Your task to perform on an android device: turn off location Image 0: 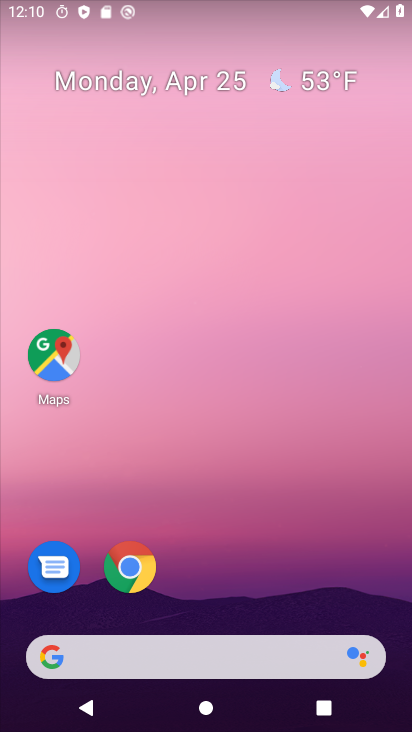
Step 0: drag from (305, 596) to (316, 62)
Your task to perform on an android device: turn off location Image 1: 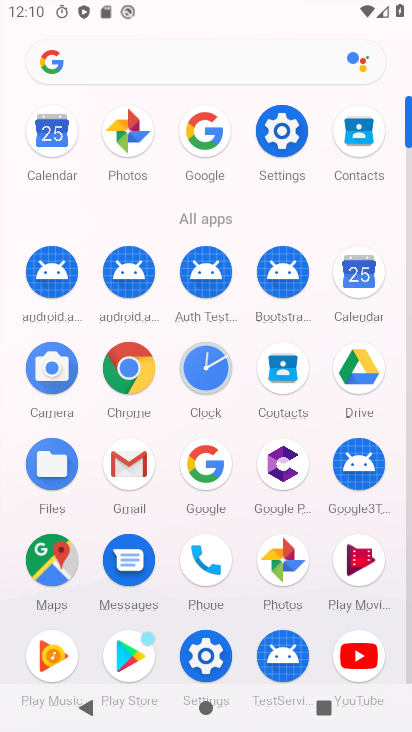
Step 1: click (279, 131)
Your task to perform on an android device: turn off location Image 2: 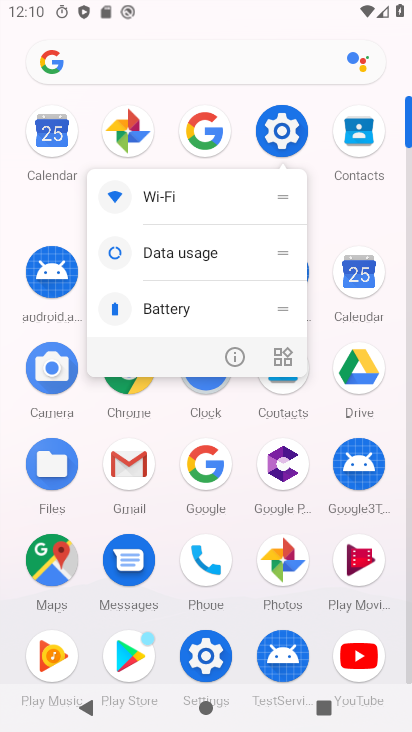
Step 2: click (279, 132)
Your task to perform on an android device: turn off location Image 3: 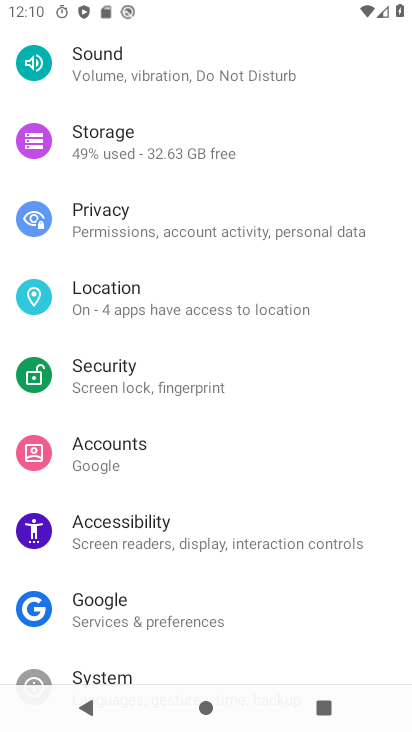
Step 3: click (205, 301)
Your task to perform on an android device: turn off location Image 4: 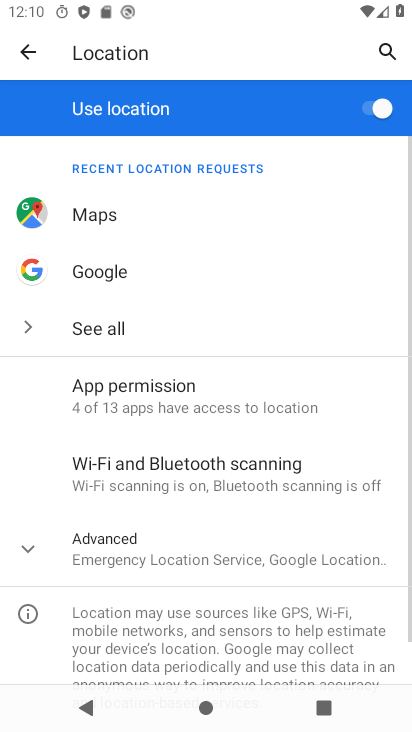
Step 4: click (369, 112)
Your task to perform on an android device: turn off location Image 5: 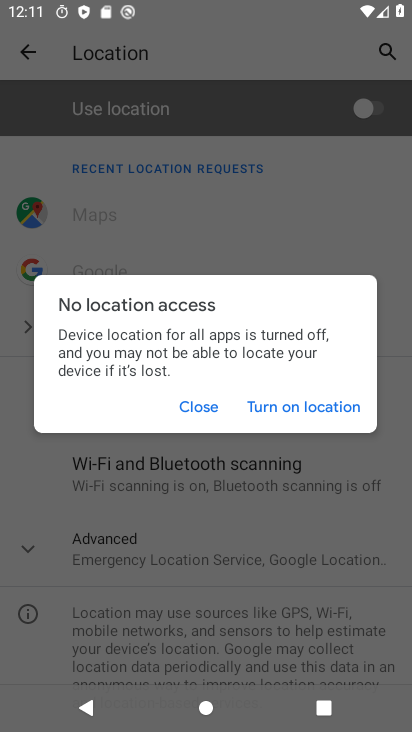
Step 5: task complete